Your task to perform on an android device: turn off smart reply in the gmail app Image 0: 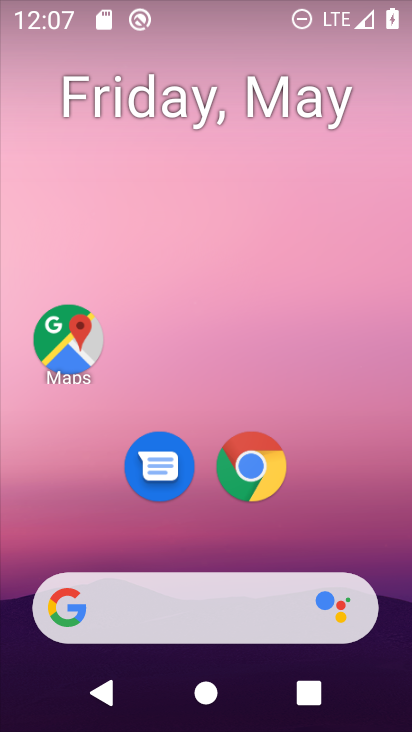
Step 0: drag from (237, 613) to (285, 0)
Your task to perform on an android device: turn off smart reply in the gmail app Image 1: 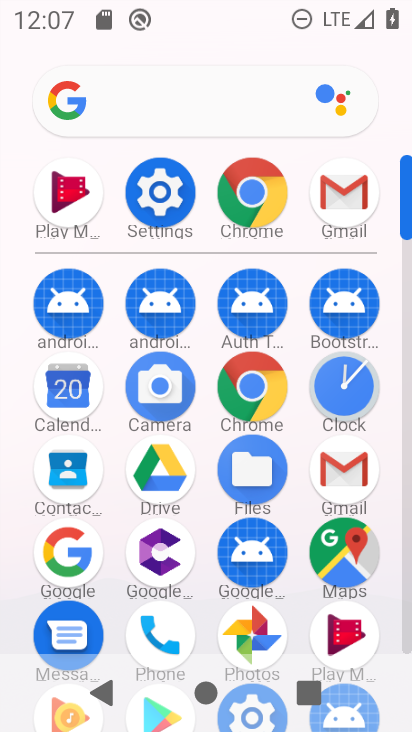
Step 1: click (341, 473)
Your task to perform on an android device: turn off smart reply in the gmail app Image 2: 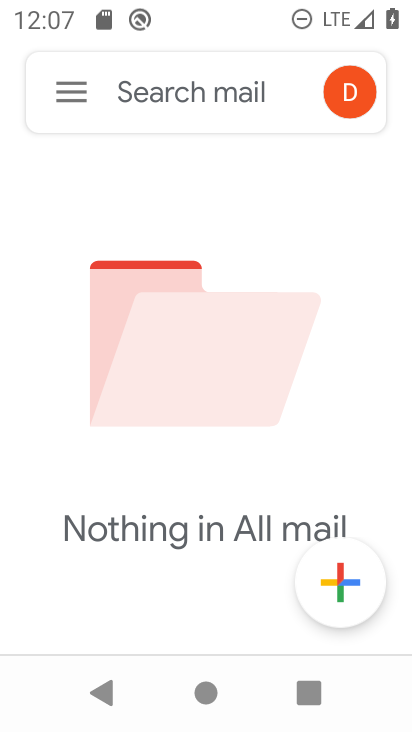
Step 2: click (55, 95)
Your task to perform on an android device: turn off smart reply in the gmail app Image 3: 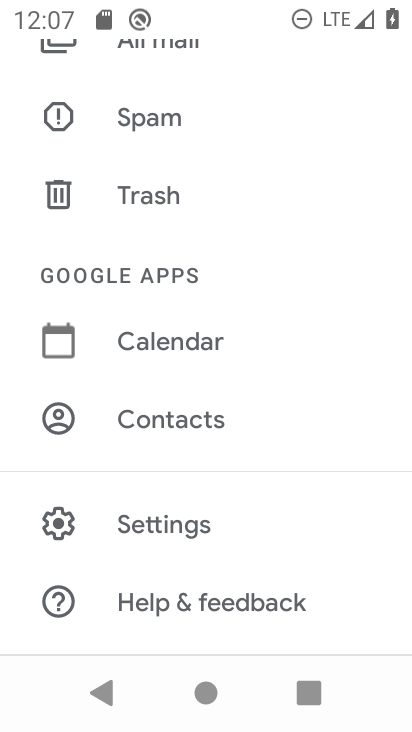
Step 3: click (212, 527)
Your task to perform on an android device: turn off smart reply in the gmail app Image 4: 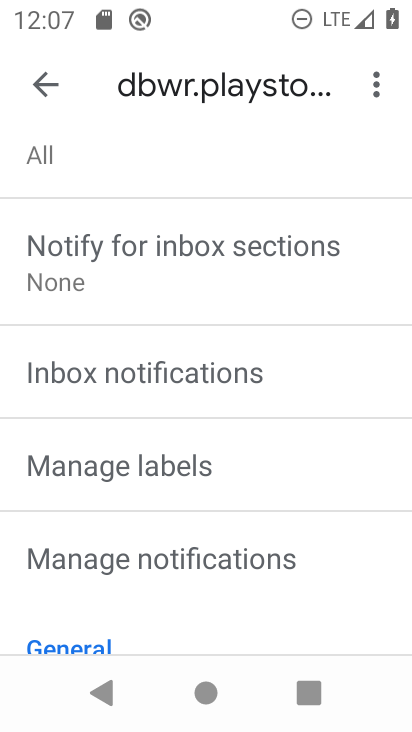
Step 4: drag from (231, 331) to (219, 667)
Your task to perform on an android device: turn off smart reply in the gmail app Image 5: 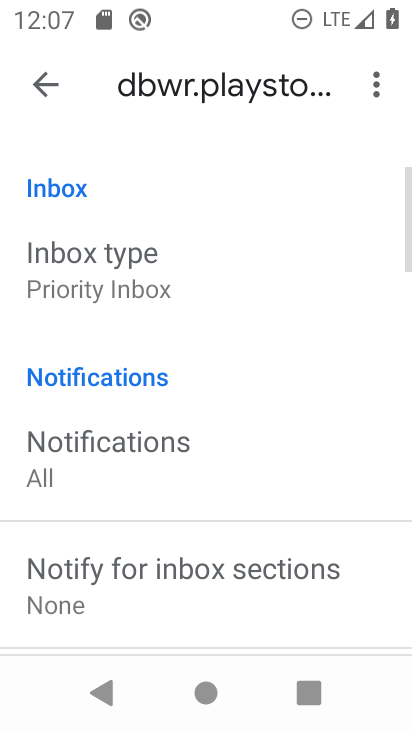
Step 5: drag from (236, 250) to (246, 545)
Your task to perform on an android device: turn off smart reply in the gmail app Image 6: 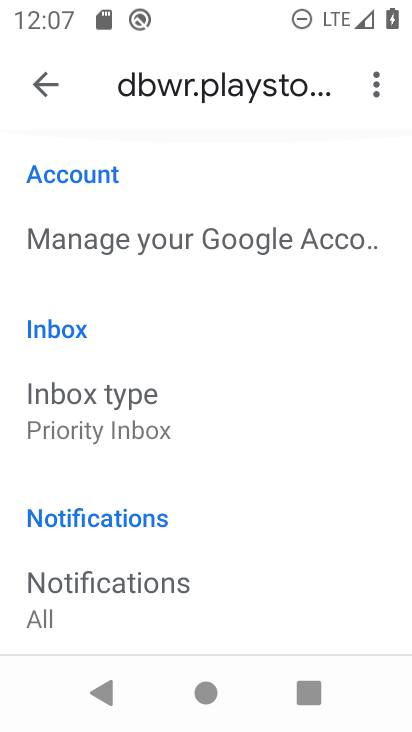
Step 6: drag from (229, 595) to (291, 65)
Your task to perform on an android device: turn off smart reply in the gmail app Image 7: 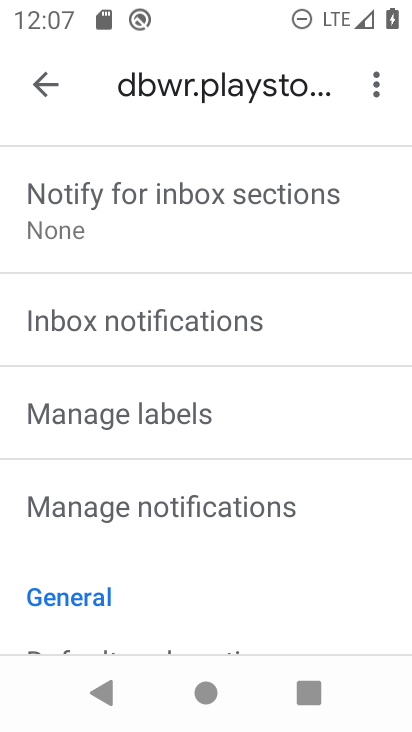
Step 7: drag from (304, 590) to (323, 143)
Your task to perform on an android device: turn off smart reply in the gmail app Image 8: 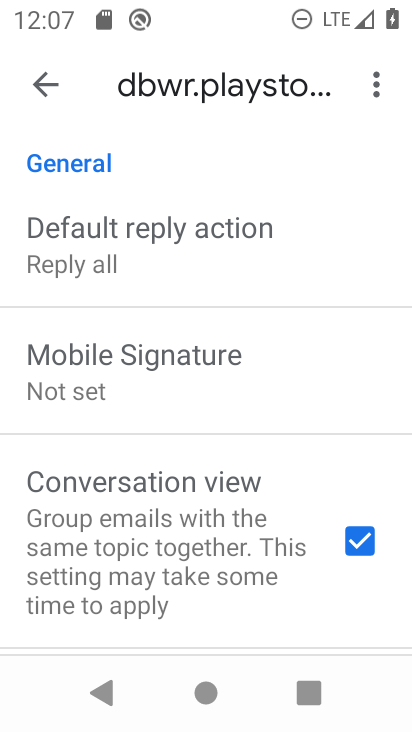
Step 8: drag from (272, 557) to (313, 177)
Your task to perform on an android device: turn off smart reply in the gmail app Image 9: 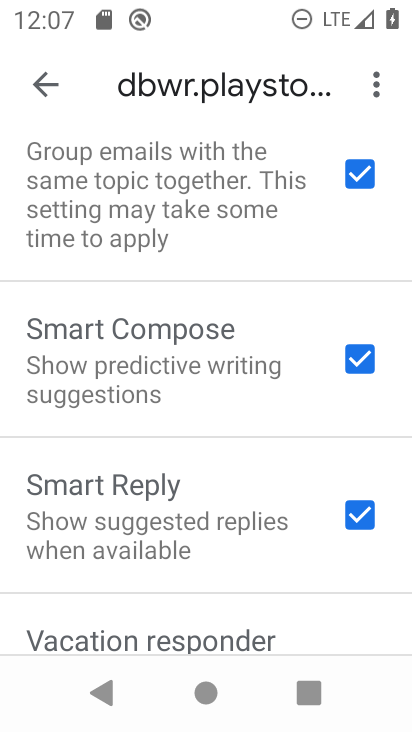
Step 9: click (362, 514)
Your task to perform on an android device: turn off smart reply in the gmail app Image 10: 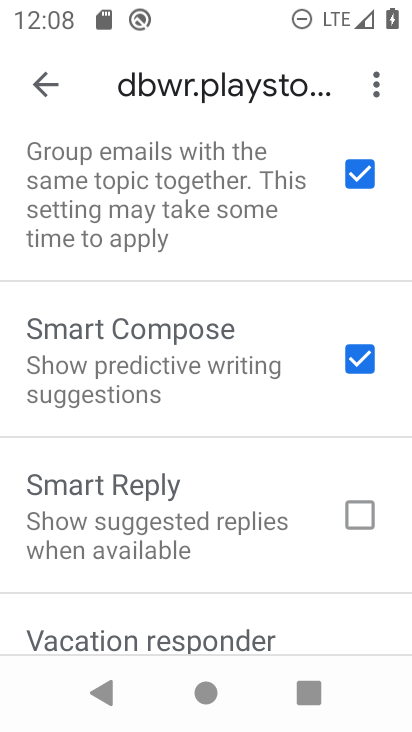
Step 10: task complete